Your task to perform on an android device: Open the phone app and click the voicemail tab. Image 0: 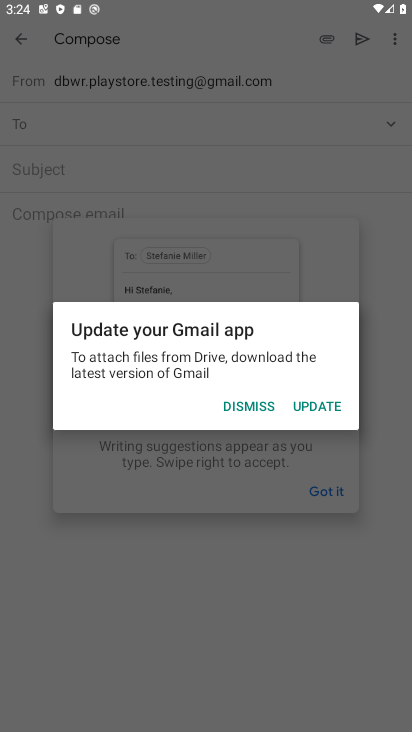
Step 0: press back button
Your task to perform on an android device: Open the phone app and click the voicemail tab. Image 1: 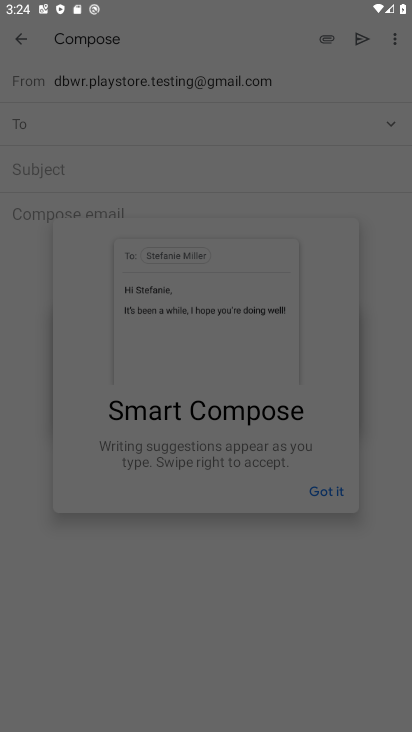
Step 1: press back button
Your task to perform on an android device: Open the phone app and click the voicemail tab. Image 2: 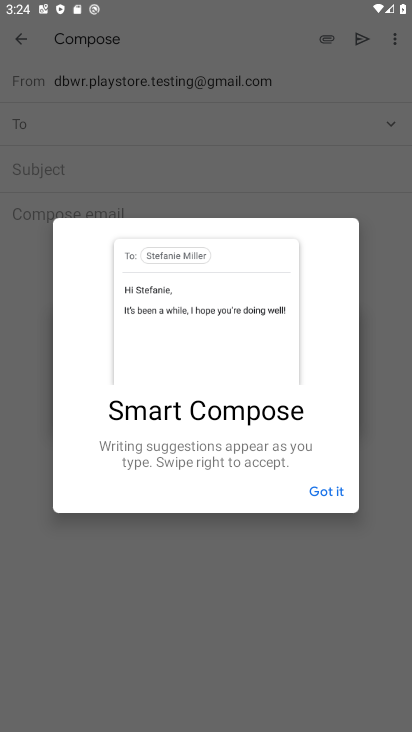
Step 2: press back button
Your task to perform on an android device: Open the phone app and click the voicemail tab. Image 3: 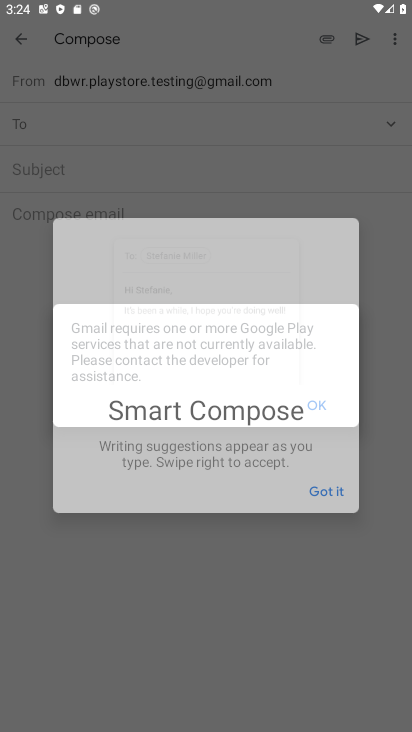
Step 3: press back button
Your task to perform on an android device: Open the phone app and click the voicemail tab. Image 4: 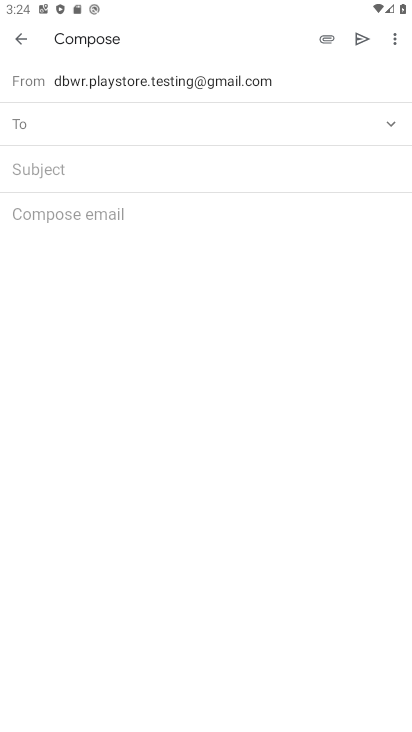
Step 4: press home button
Your task to perform on an android device: Open the phone app and click the voicemail tab. Image 5: 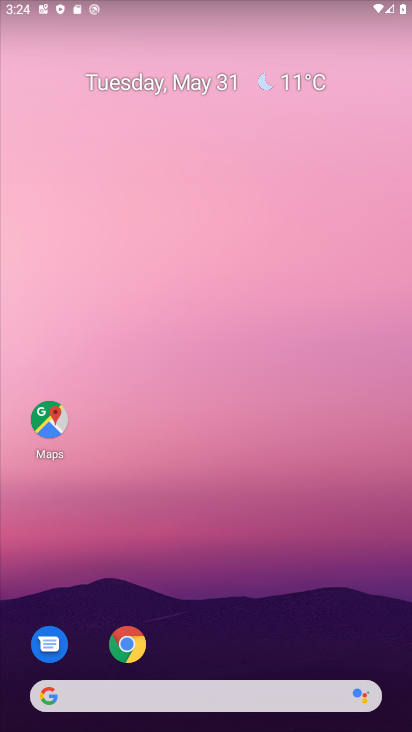
Step 5: drag from (177, 565) to (154, 311)
Your task to perform on an android device: Open the phone app and click the voicemail tab. Image 6: 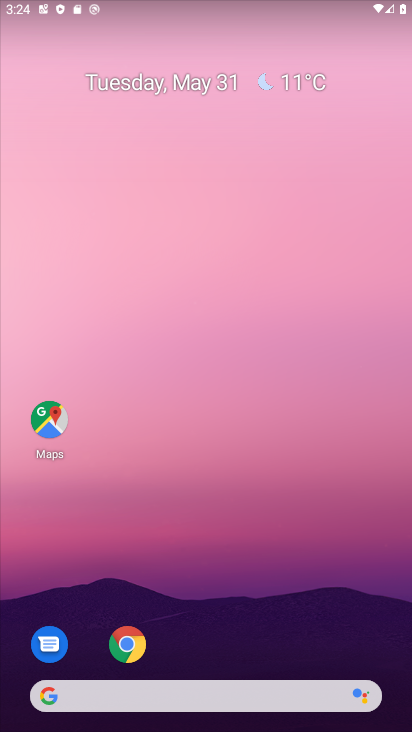
Step 6: drag from (205, 688) to (210, 359)
Your task to perform on an android device: Open the phone app and click the voicemail tab. Image 7: 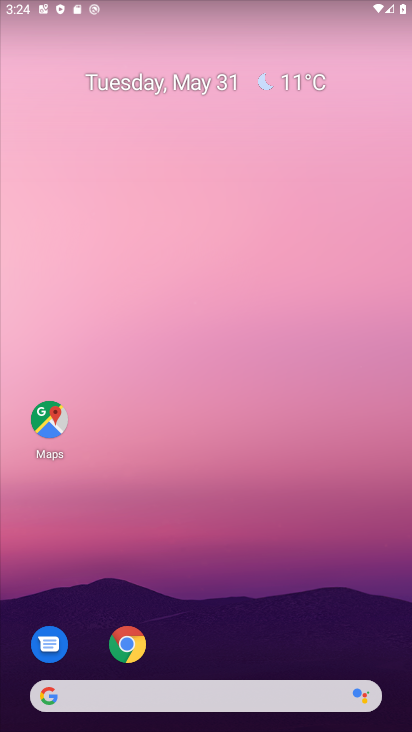
Step 7: drag from (181, 425) to (181, 308)
Your task to perform on an android device: Open the phone app and click the voicemail tab. Image 8: 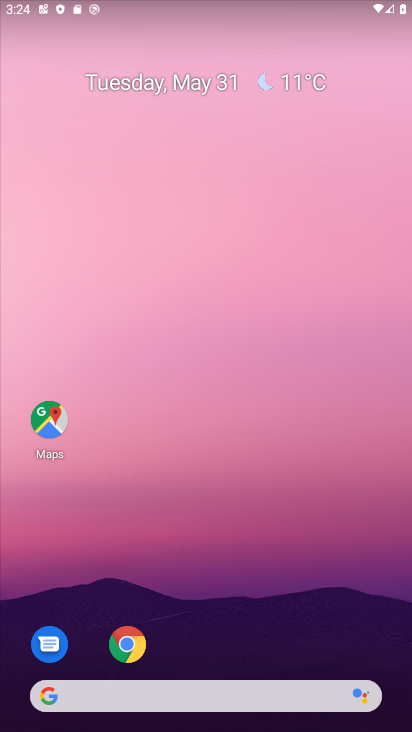
Step 8: drag from (307, 612) to (274, 194)
Your task to perform on an android device: Open the phone app and click the voicemail tab. Image 9: 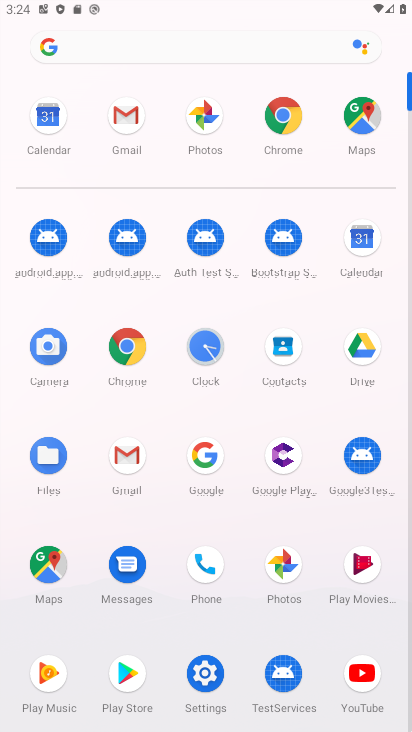
Step 9: click (203, 562)
Your task to perform on an android device: Open the phone app and click the voicemail tab. Image 10: 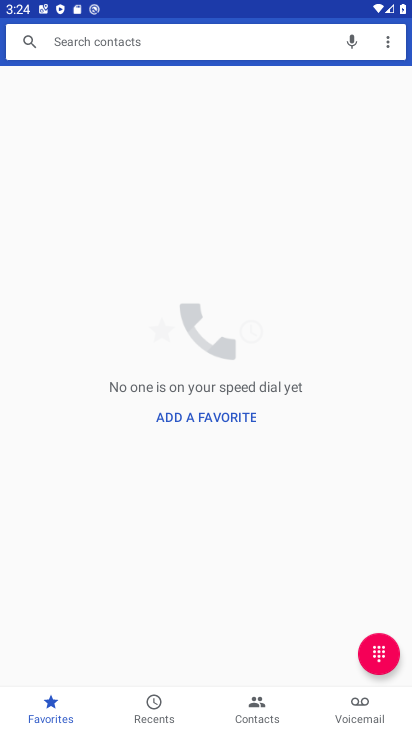
Step 10: click (352, 723)
Your task to perform on an android device: Open the phone app and click the voicemail tab. Image 11: 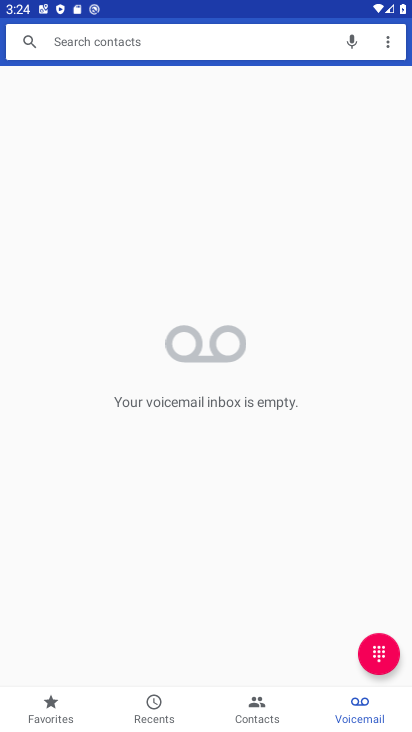
Step 11: task complete